Your task to perform on an android device: set the stopwatch Image 0: 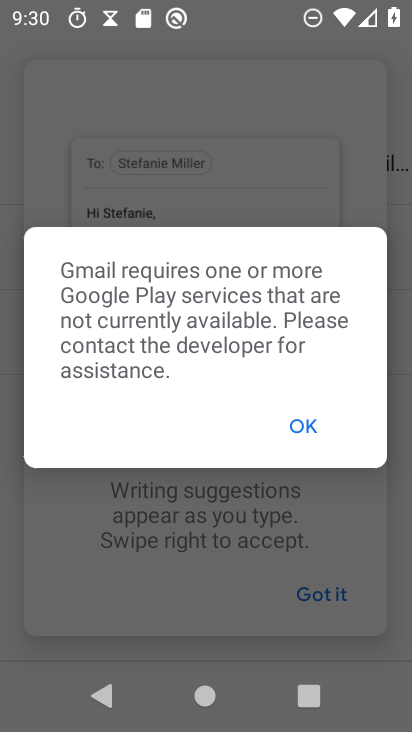
Step 0: press home button
Your task to perform on an android device: set the stopwatch Image 1: 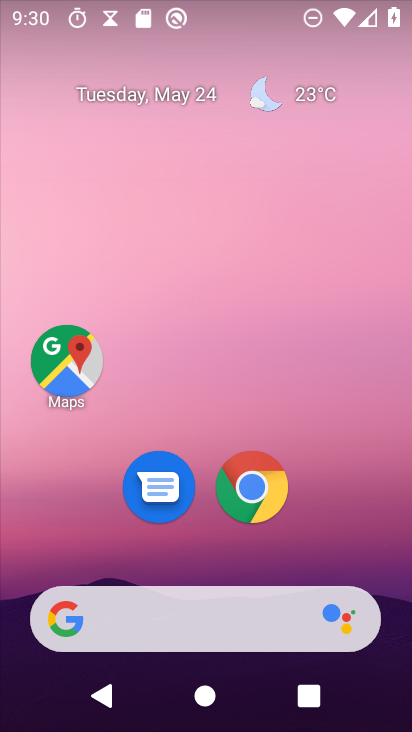
Step 1: drag from (33, 596) to (273, 138)
Your task to perform on an android device: set the stopwatch Image 2: 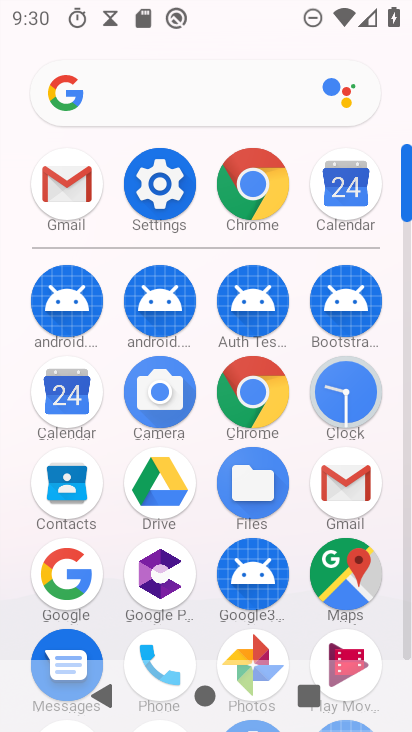
Step 2: click (342, 393)
Your task to perform on an android device: set the stopwatch Image 3: 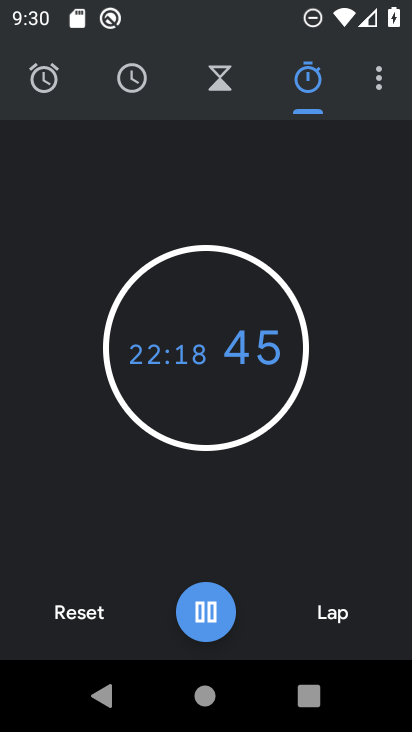
Step 3: click (305, 74)
Your task to perform on an android device: set the stopwatch Image 4: 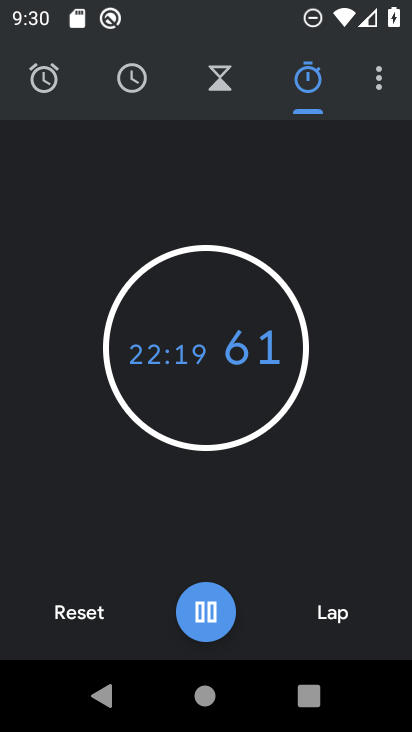
Step 4: click (192, 621)
Your task to perform on an android device: set the stopwatch Image 5: 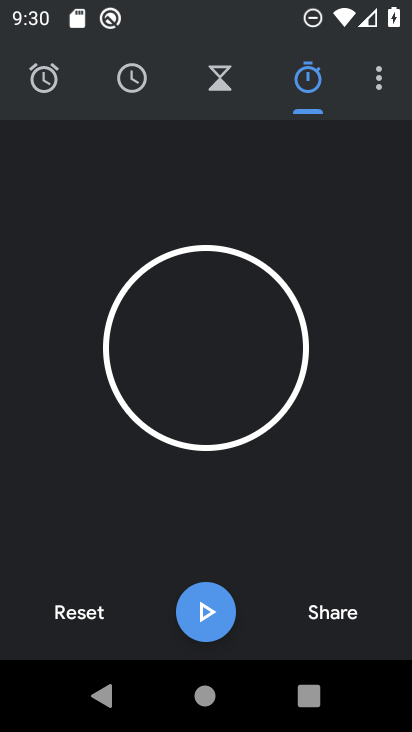
Step 5: click (93, 618)
Your task to perform on an android device: set the stopwatch Image 6: 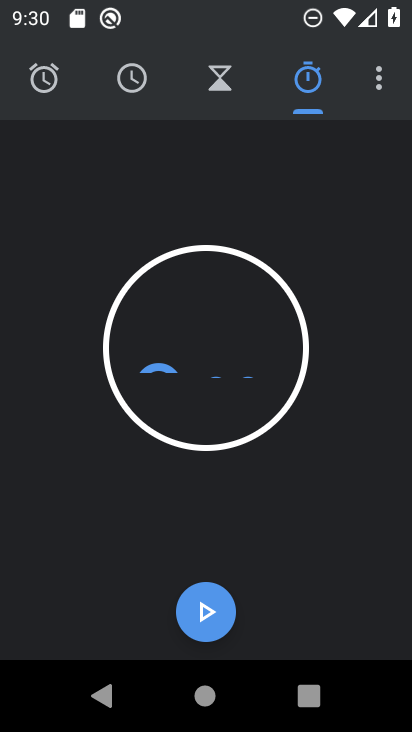
Step 6: task complete